Your task to perform on an android device: Open Google Maps Image 0: 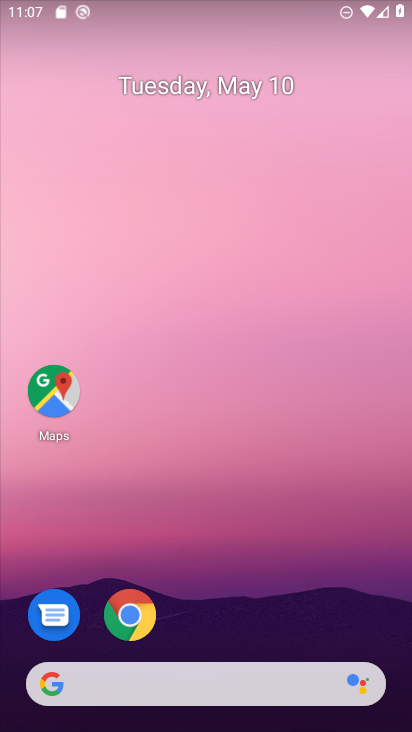
Step 0: drag from (196, 651) to (267, 200)
Your task to perform on an android device: Open Google Maps Image 1: 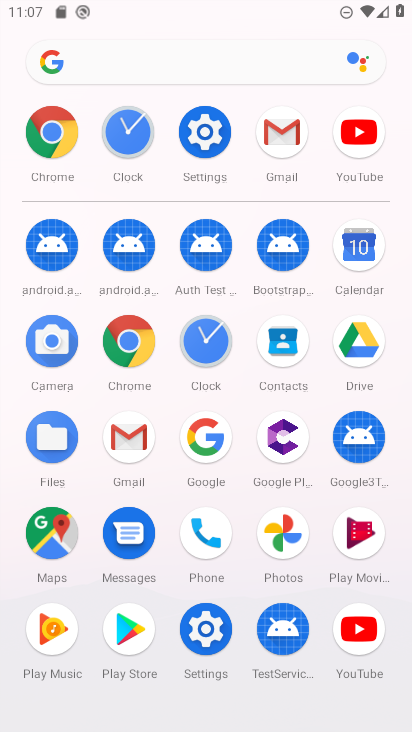
Step 1: click (50, 542)
Your task to perform on an android device: Open Google Maps Image 2: 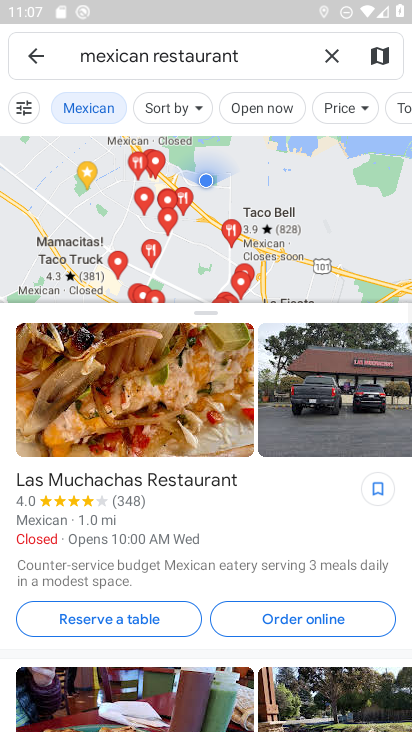
Step 2: task complete